Your task to perform on an android device: visit the assistant section in the google photos Image 0: 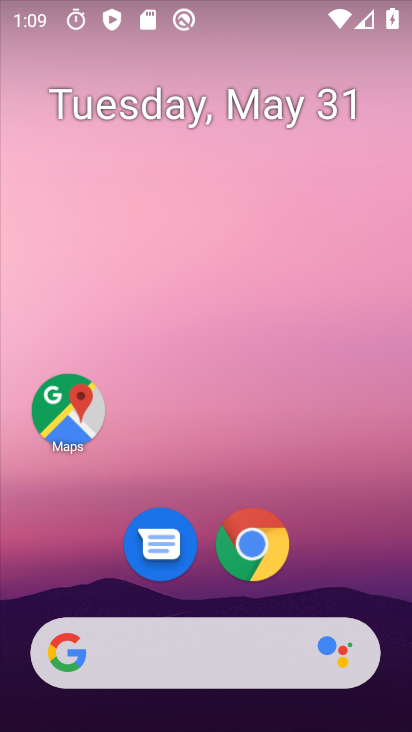
Step 0: drag from (190, 589) to (262, 63)
Your task to perform on an android device: visit the assistant section in the google photos Image 1: 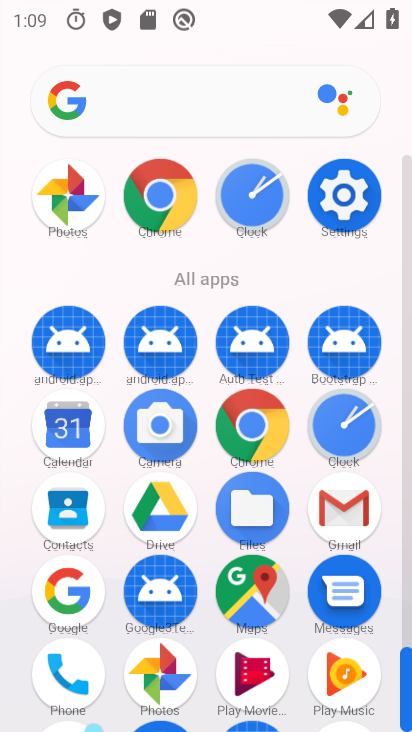
Step 1: click (155, 670)
Your task to perform on an android device: visit the assistant section in the google photos Image 2: 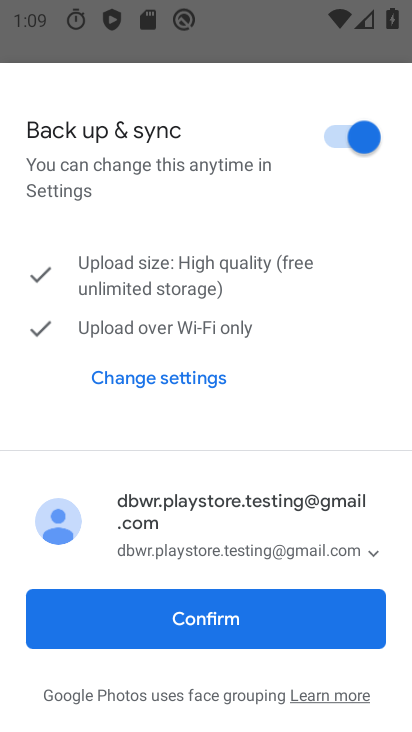
Step 2: click (157, 624)
Your task to perform on an android device: visit the assistant section in the google photos Image 3: 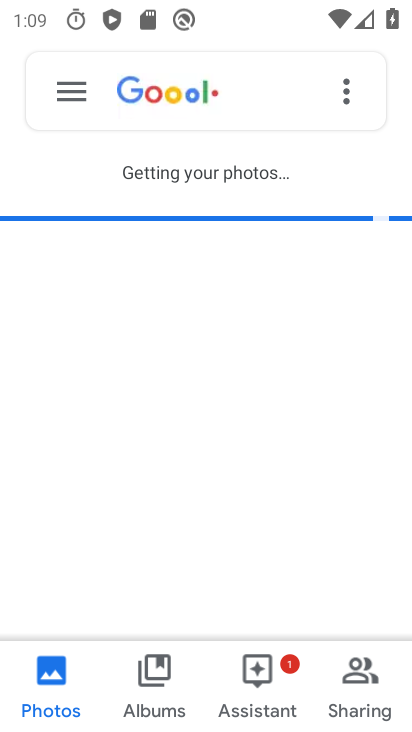
Step 3: task complete